Your task to perform on an android device: see tabs open on other devices in the chrome app Image 0: 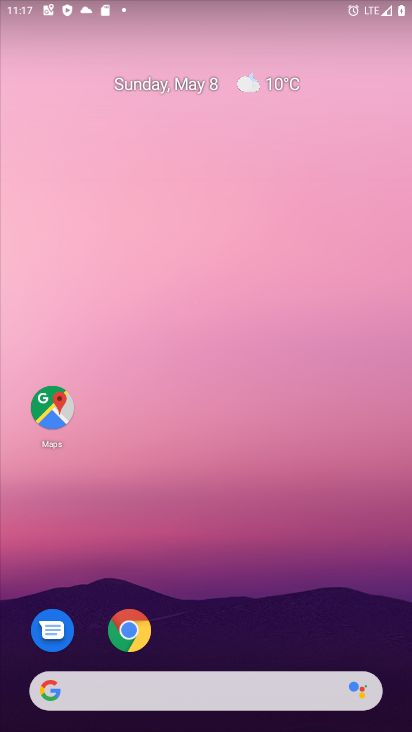
Step 0: drag from (346, 610) to (261, 14)
Your task to perform on an android device: see tabs open on other devices in the chrome app Image 1: 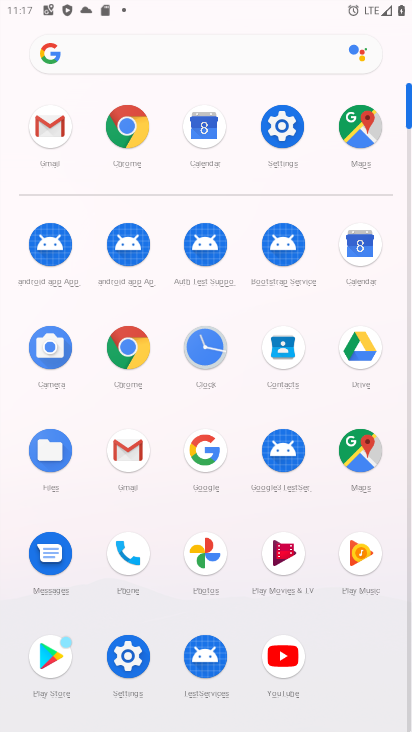
Step 1: click (124, 322)
Your task to perform on an android device: see tabs open on other devices in the chrome app Image 2: 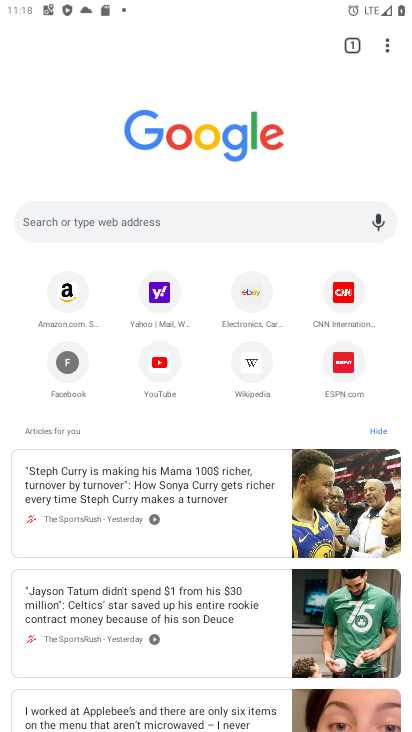
Step 2: task complete